Your task to perform on an android device: open device folders in google photos Image 0: 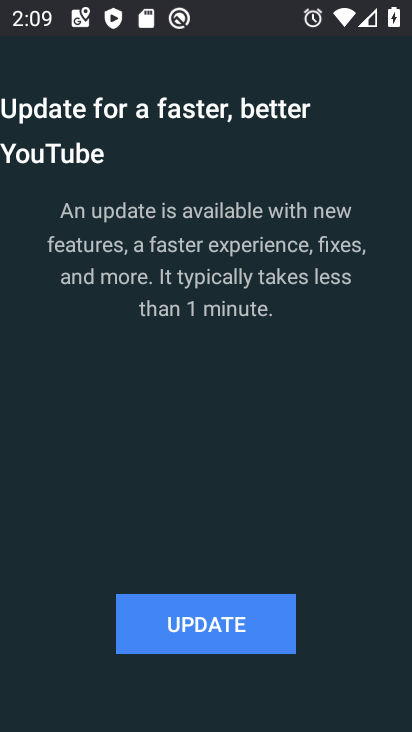
Step 0: press home button
Your task to perform on an android device: open device folders in google photos Image 1: 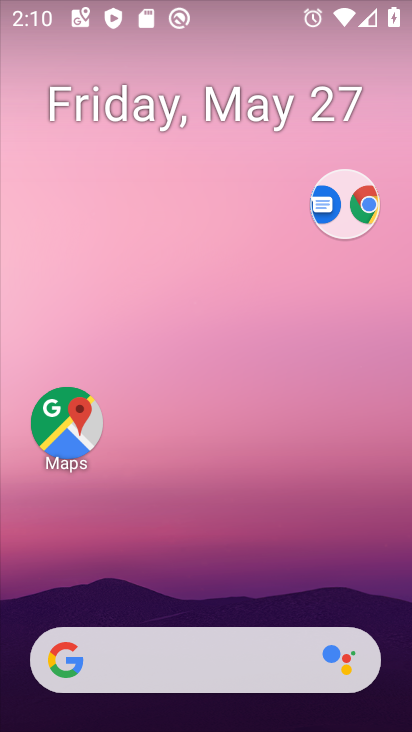
Step 1: drag from (193, 655) to (157, 54)
Your task to perform on an android device: open device folders in google photos Image 2: 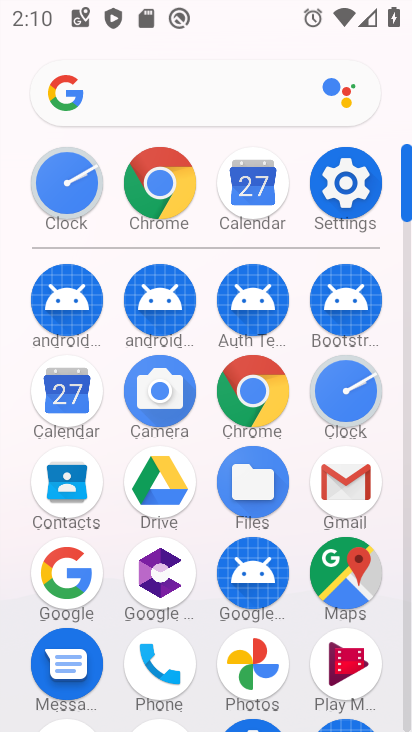
Step 2: drag from (209, 483) to (173, 234)
Your task to perform on an android device: open device folders in google photos Image 3: 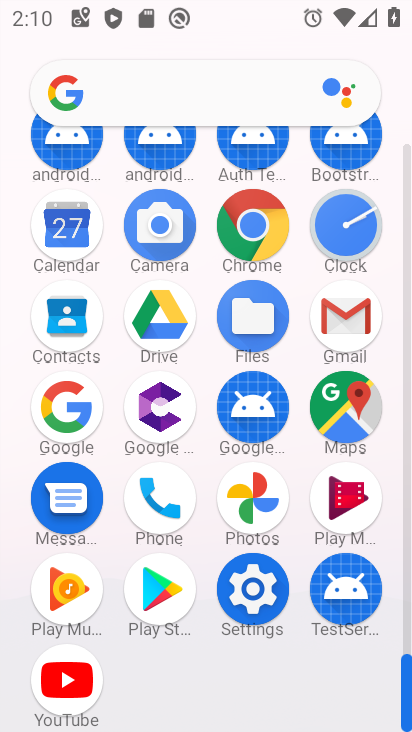
Step 3: click (256, 509)
Your task to perform on an android device: open device folders in google photos Image 4: 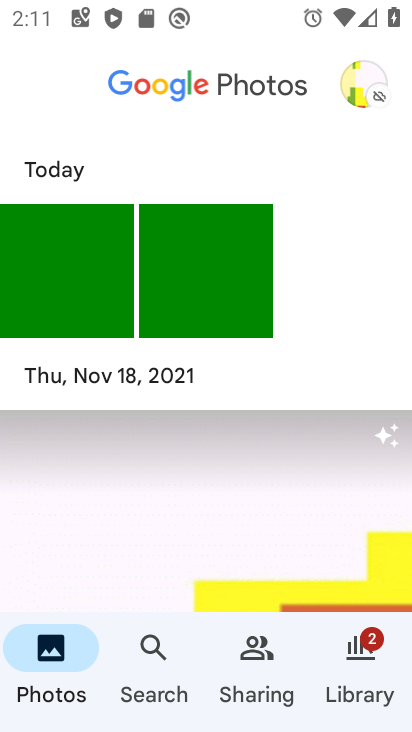
Step 4: click (369, 97)
Your task to perform on an android device: open device folders in google photos Image 5: 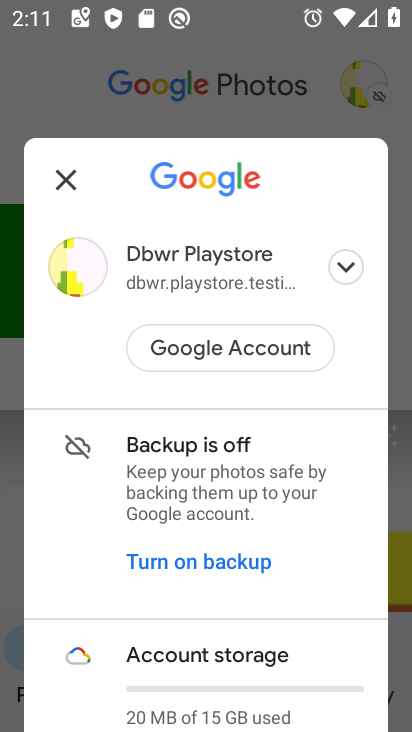
Step 5: task complete